Your task to perform on an android device: Clear the shopping cart on newegg.com. Add razer blade to the cart on newegg.com, then select checkout. Image 0: 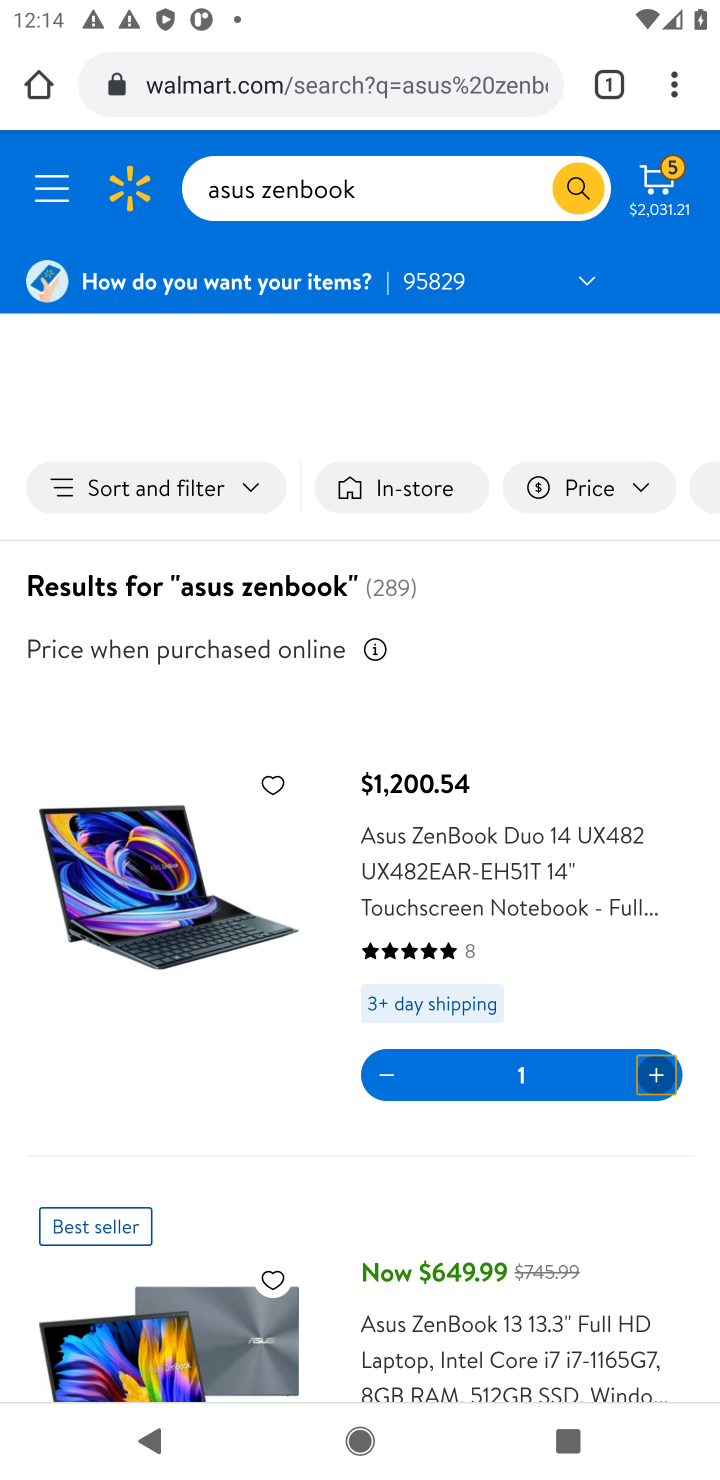
Step 0: click (262, 83)
Your task to perform on an android device: Clear the shopping cart on newegg.com. Add razer blade to the cart on newegg.com, then select checkout. Image 1: 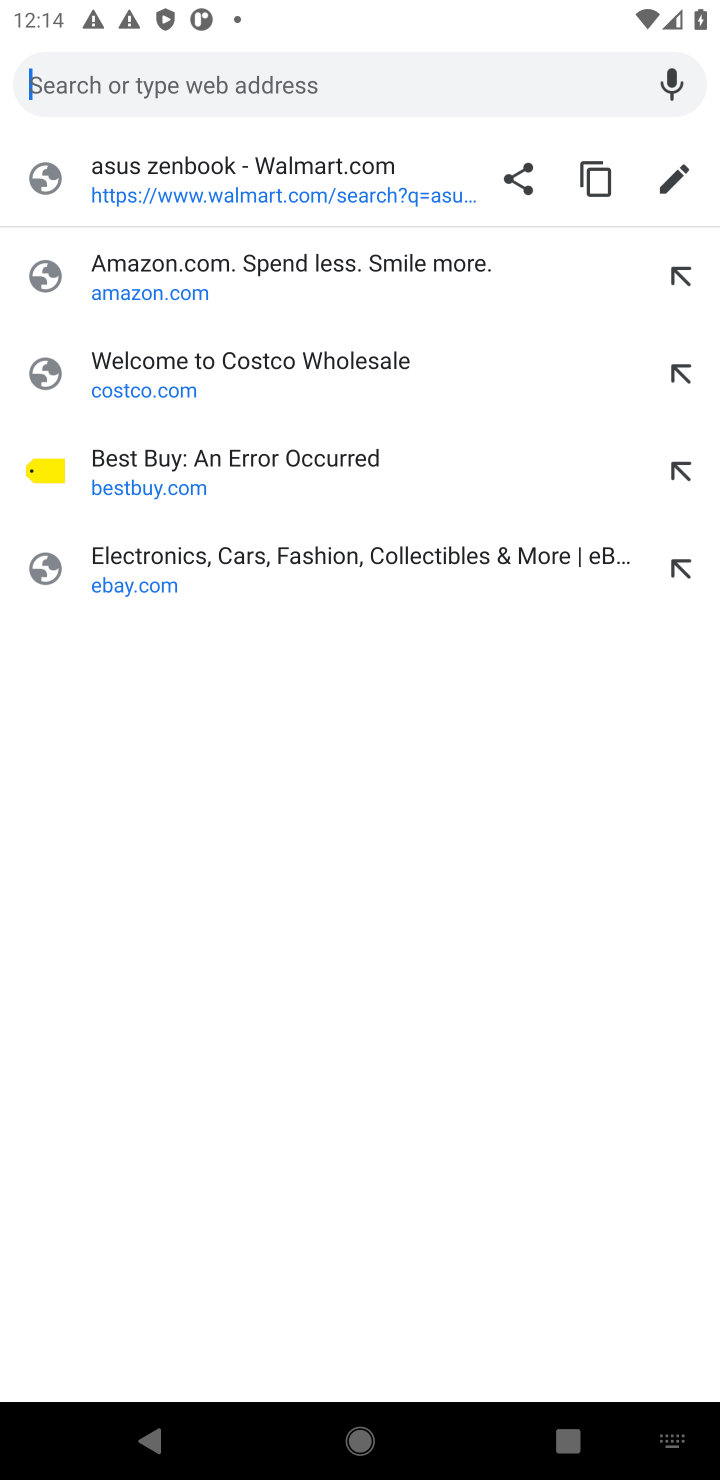
Step 1: type "newegg.com"
Your task to perform on an android device: Clear the shopping cart on newegg.com. Add razer blade to the cart on newegg.com, then select checkout. Image 2: 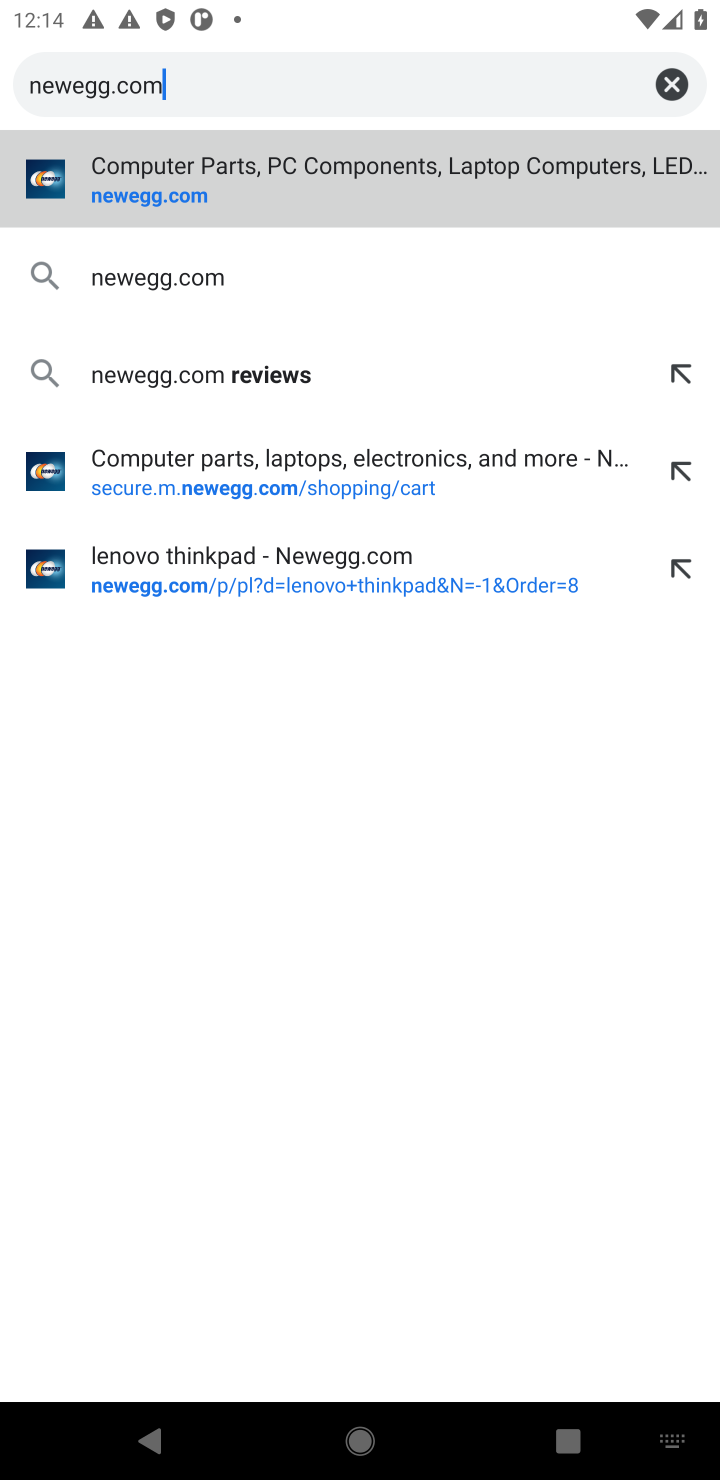
Step 2: click (141, 196)
Your task to perform on an android device: Clear the shopping cart on newegg.com. Add razer blade to the cart on newegg.com, then select checkout. Image 3: 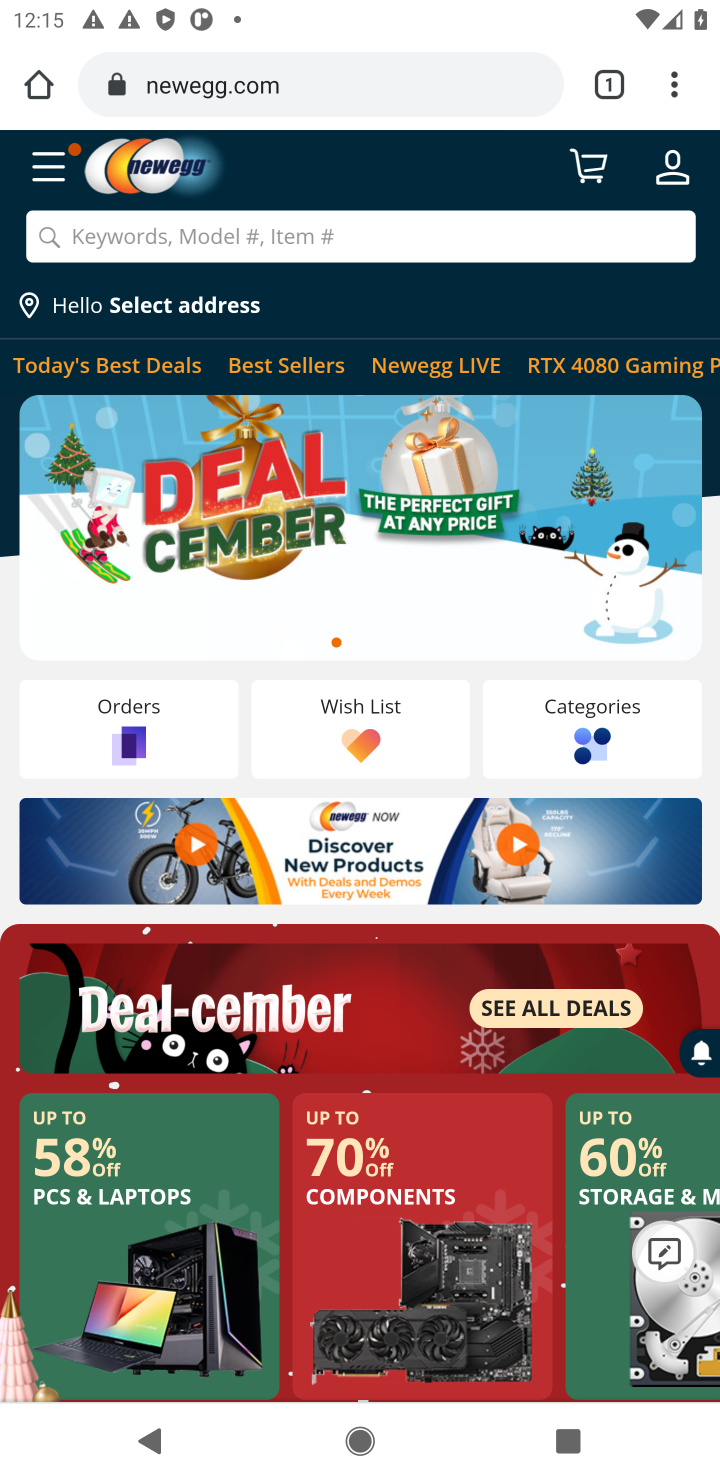
Step 3: click (590, 172)
Your task to perform on an android device: Clear the shopping cart on newegg.com. Add razer blade to the cart on newegg.com, then select checkout. Image 4: 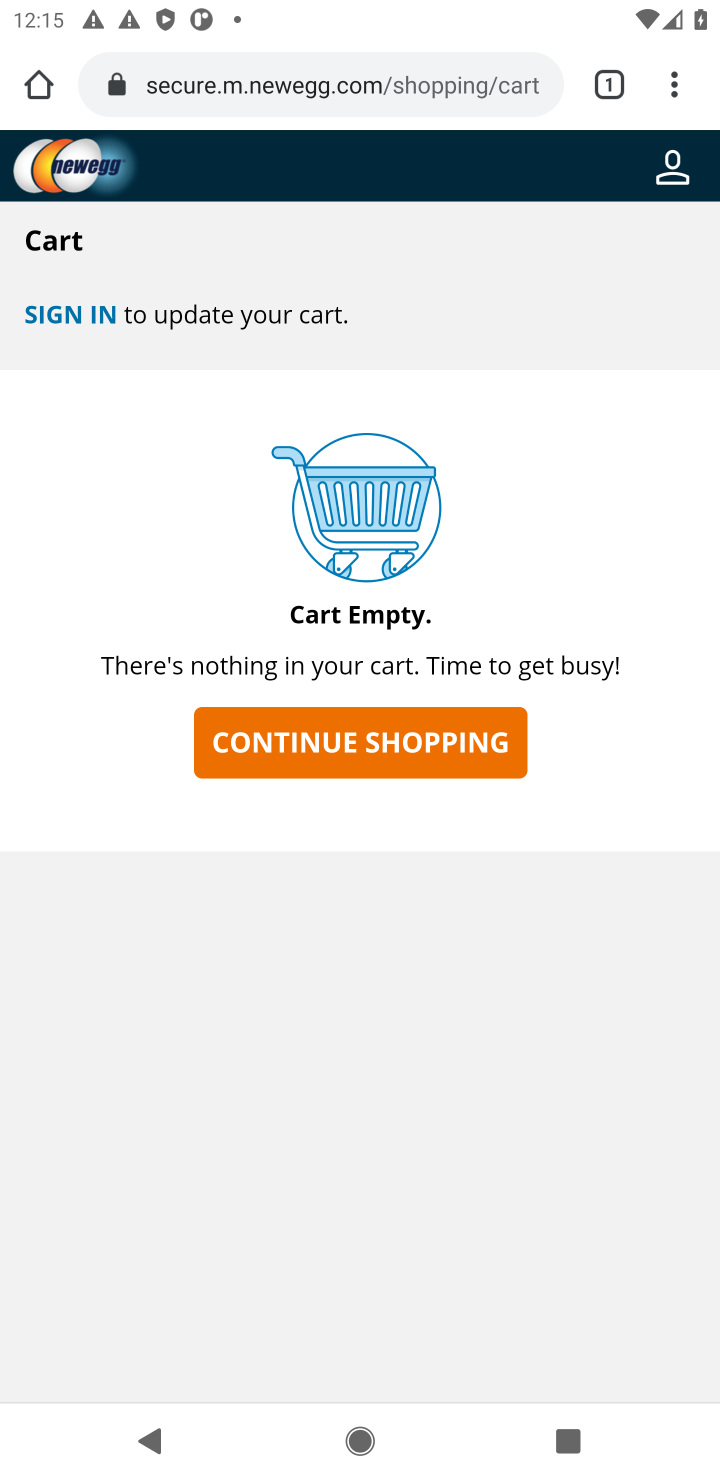
Step 4: click (271, 740)
Your task to perform on an android device: Clear the shopping cart on newegg.com. Add razer blade to the cart on newegg.com, then select checkout. Image 5: 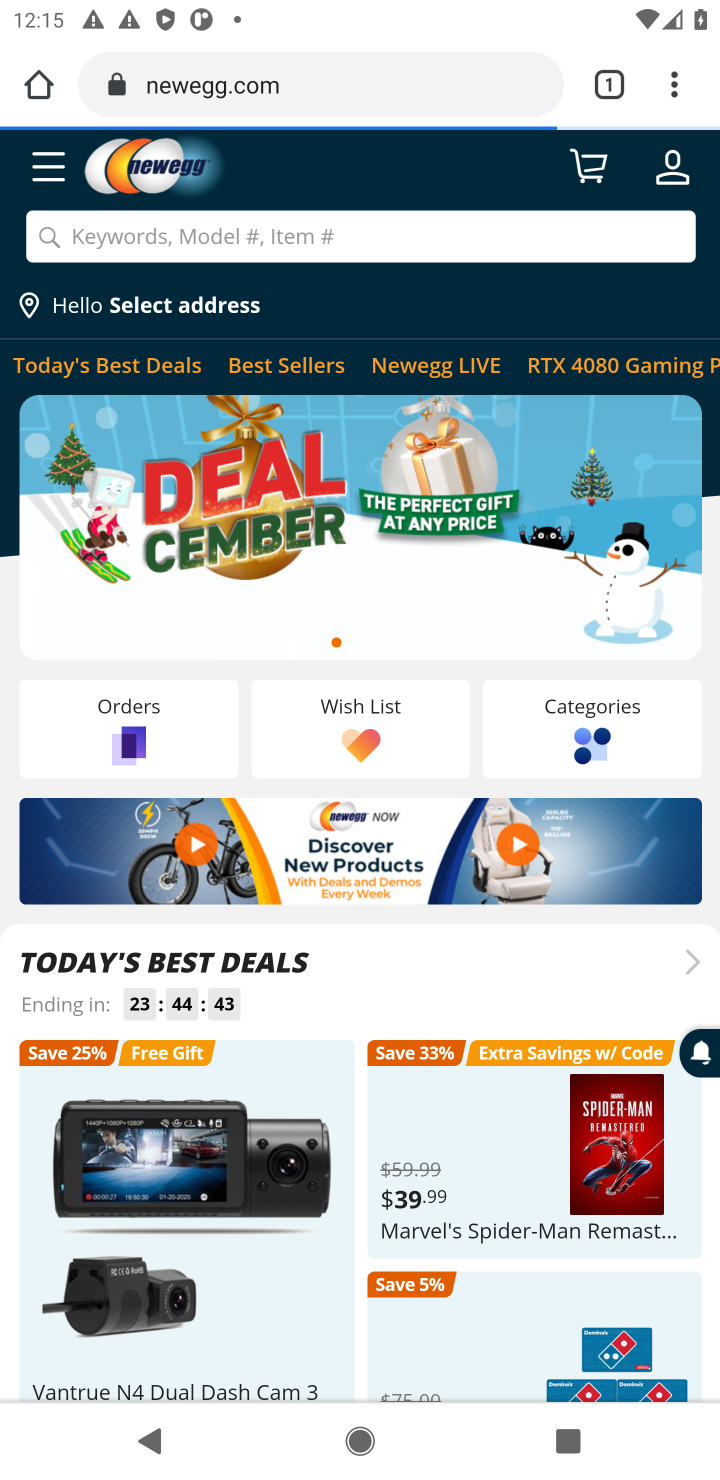
Step 5: click (136, 229)
Your task to perform on an android device: Clear the shopping cart on newegg.com. Add razer blade to the cart on newegg.com, then select checkout. Image 6: 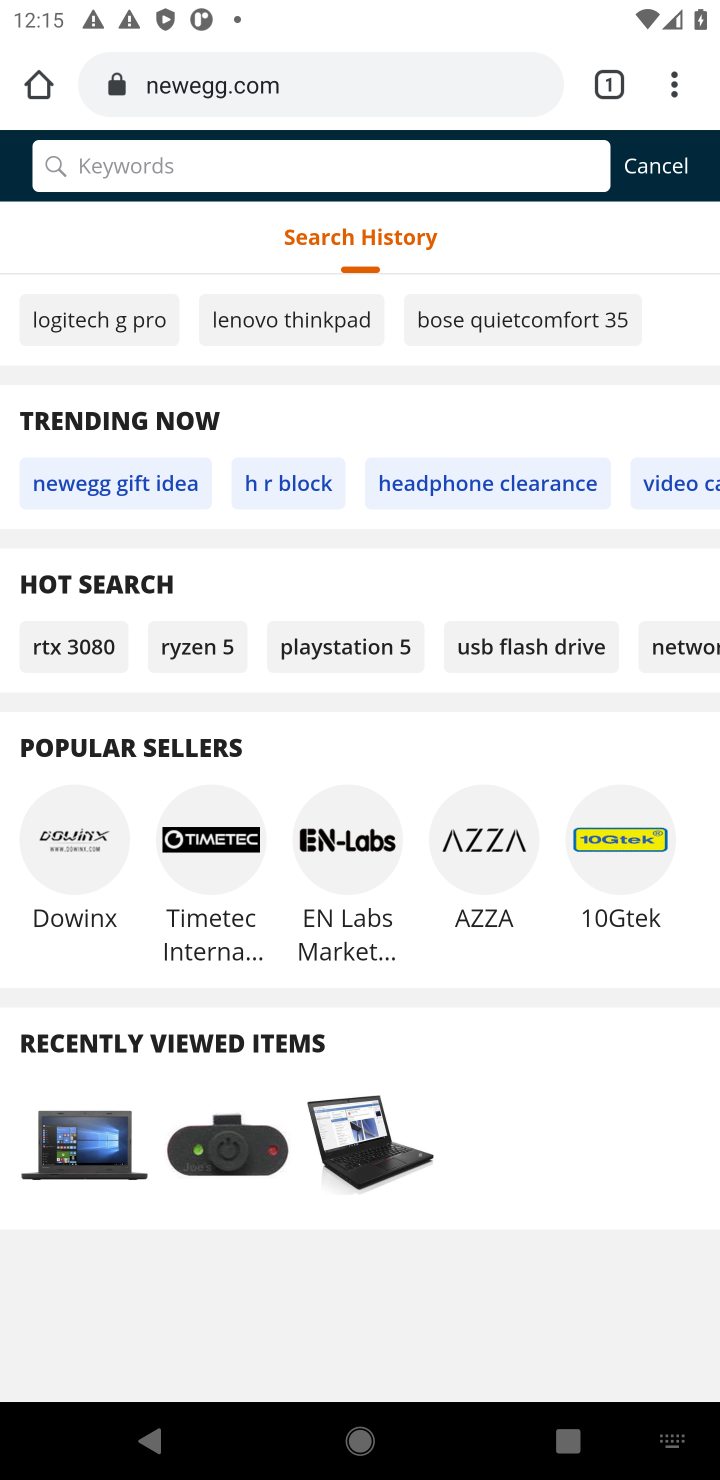
Step 6: type " razer blade"
Your task to perform on an android device: Clear the shopping cart on newegg.com. Add razer blade to the cart on newegg.com, then select checkout. Image 7: 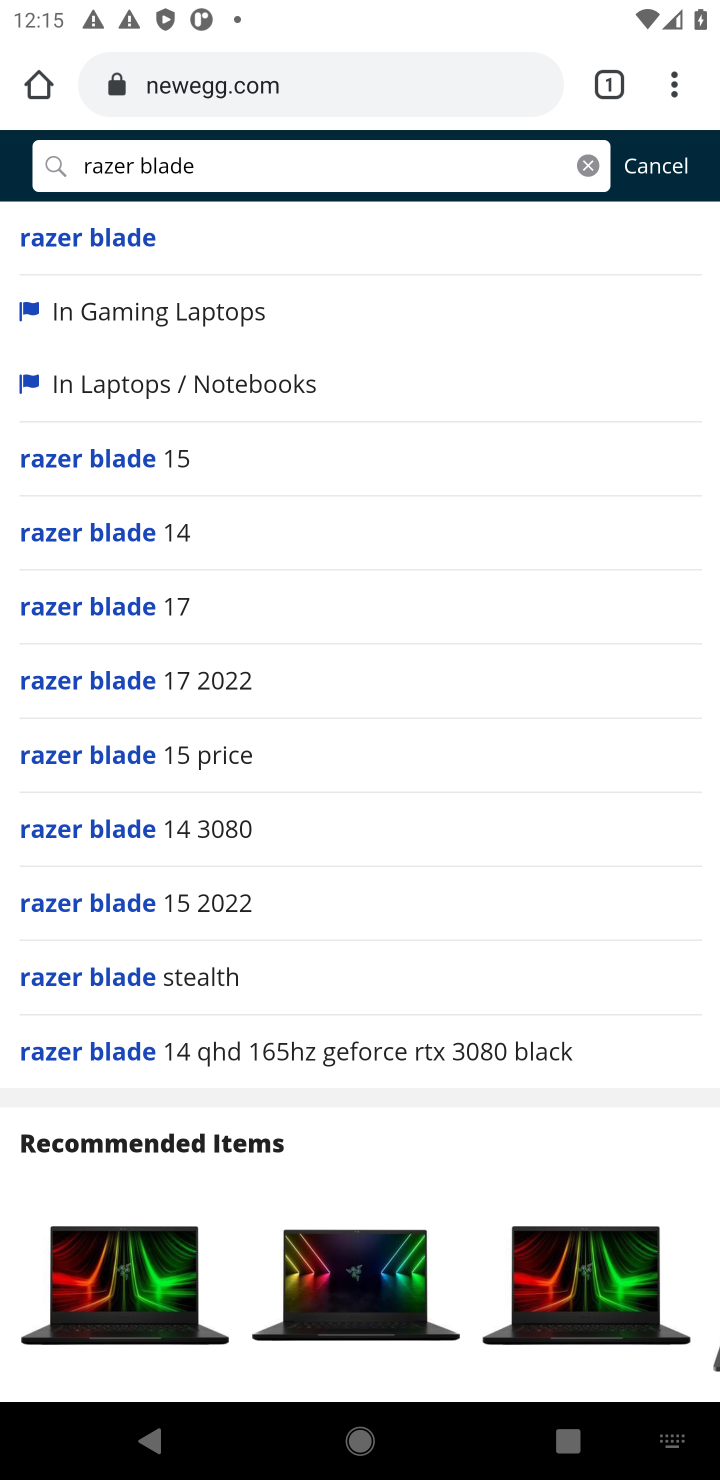
Step 7: click (104, 238)
Your task to perform on an android device: Clear the shopping cart on newegg.com. Add razer blade to the cart on newegg.com, then select checkout. Image 8: 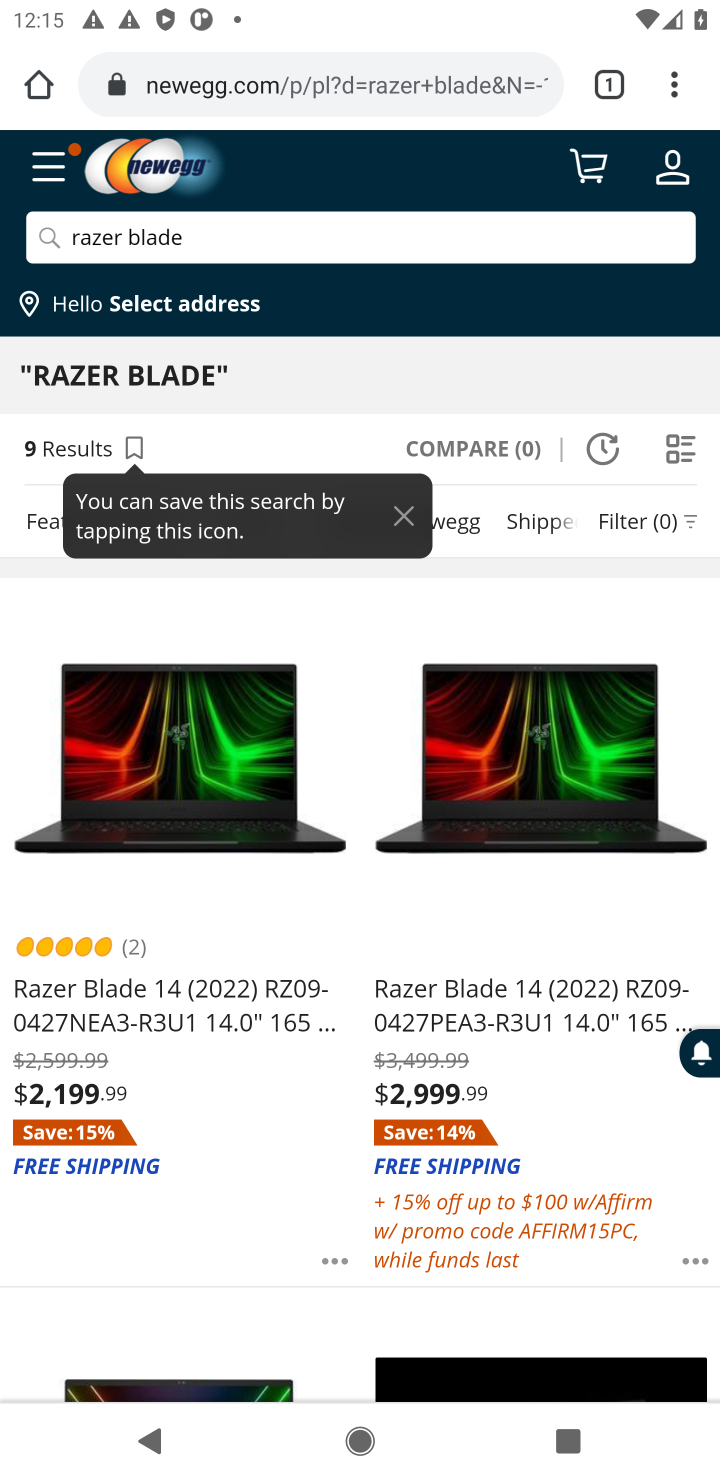
Step 8: click (117, 1020)
Your task to perform on an android device: Clear the shopping cart on newegg.com. Add razer blade to the cart on newegg.com, then select checkout. Image 9: 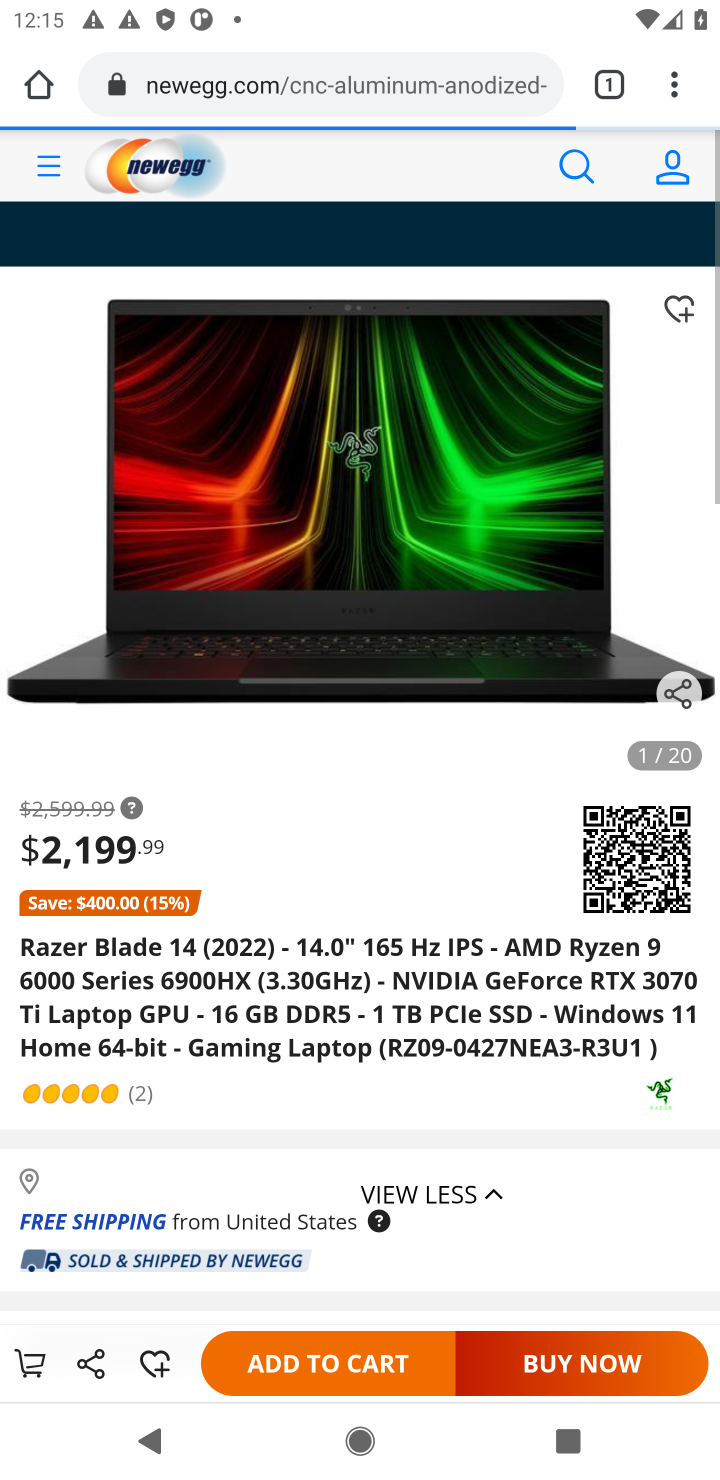
Step 9: click (98, 1011)
Your task to perform on an android device: Clear the shopping cart on newegg.com. Add razer blade to the cart on newegg.com, then select checkout. Image 10: 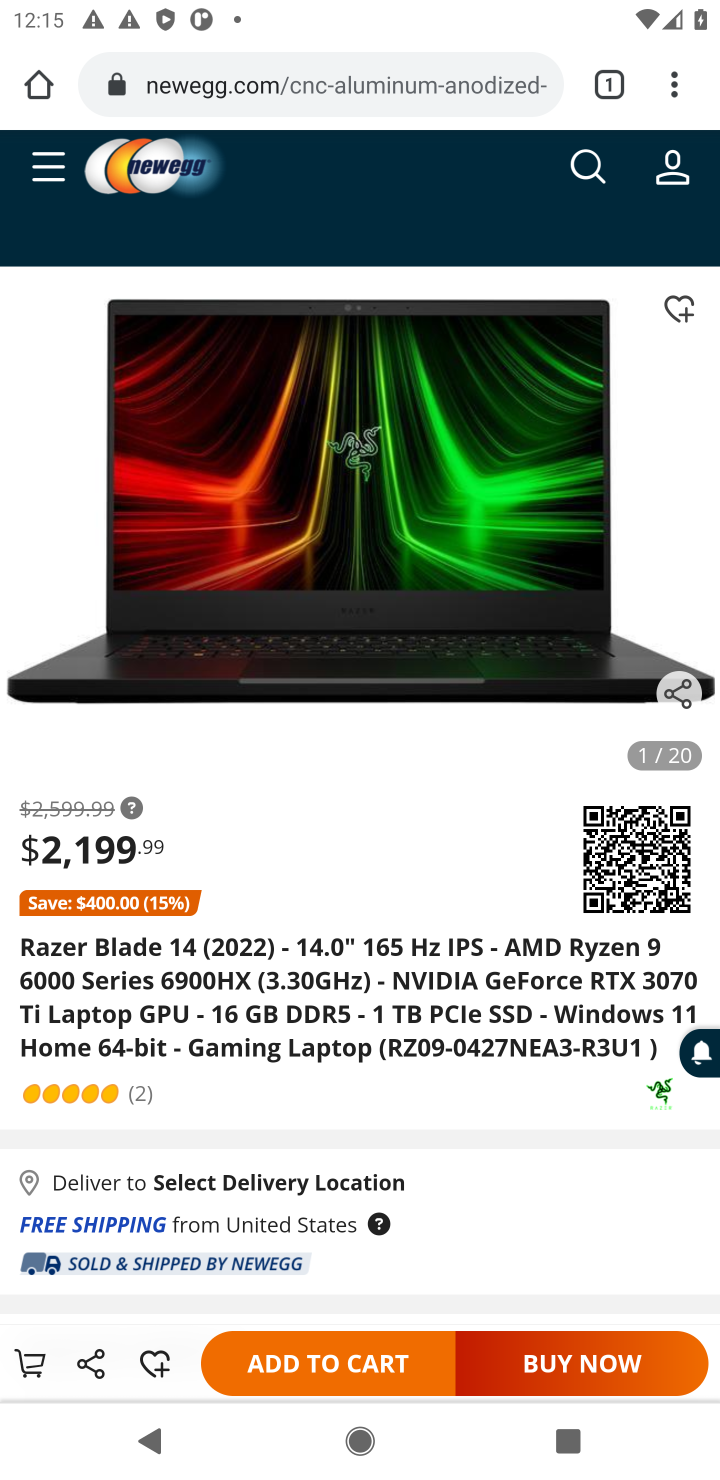
Step 10: click (324, 1362)
Your task to perform on an android device: Clear the shopping cart on newegg.com. Add razer blade to the cart on newegg.com, then select checkout. Image 11: 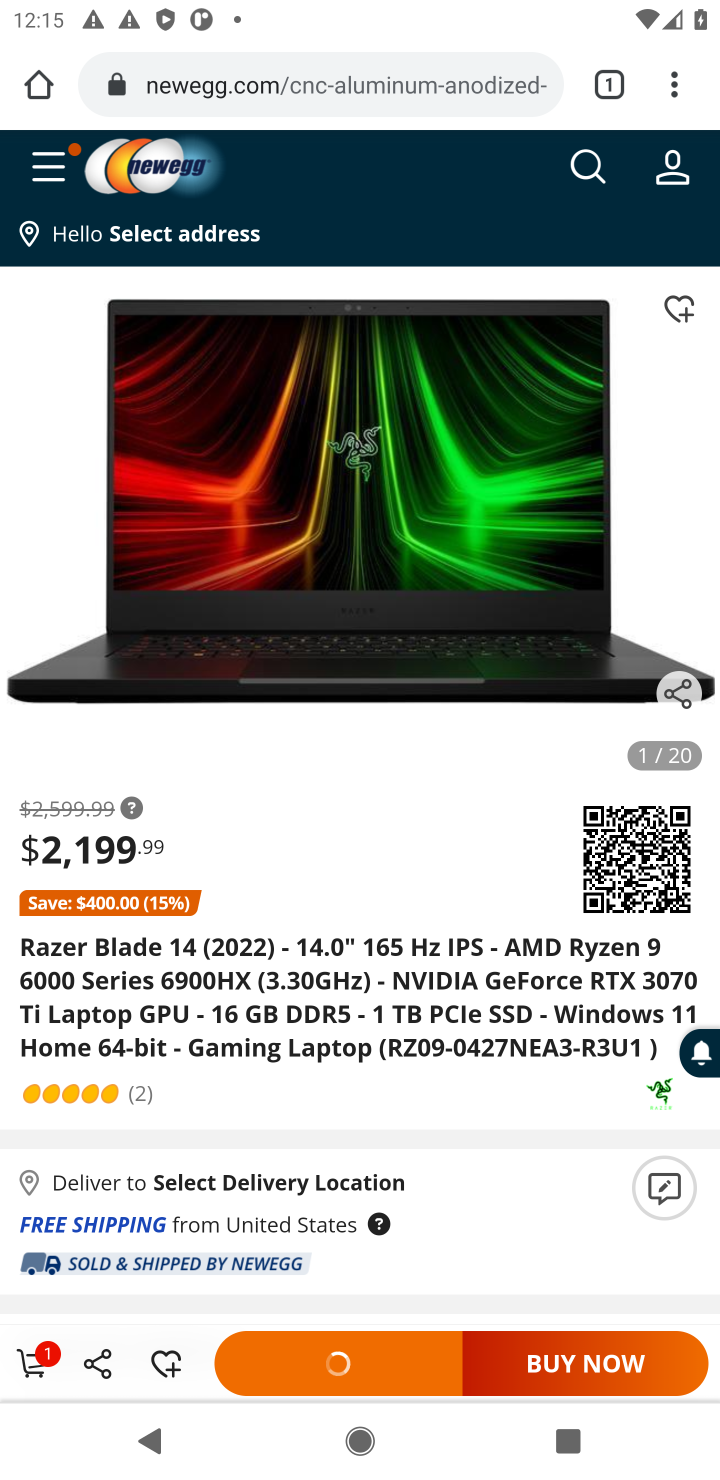
Step 11: click (33, 1366)
Your task to perform on an android device: Clear the shopping cart on newegg.com. Add razer blade to the cart on newegg.com, then select checkout. Image 12: 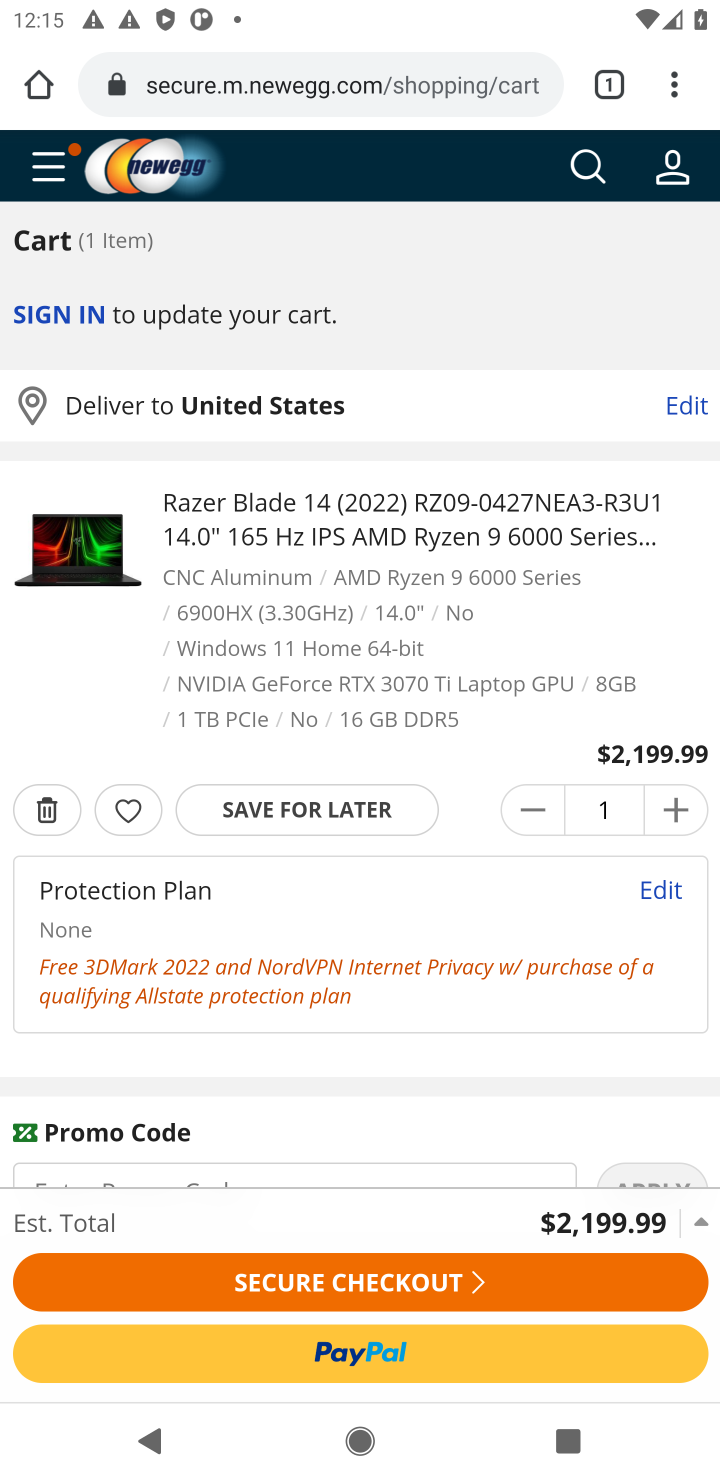
Step 12: click (79, 1348)
Your task to perform on an android device: Clear the shopping cart on newegg.com. Add razer blade to the cart on newegg.com, then select checkout. Image 13: 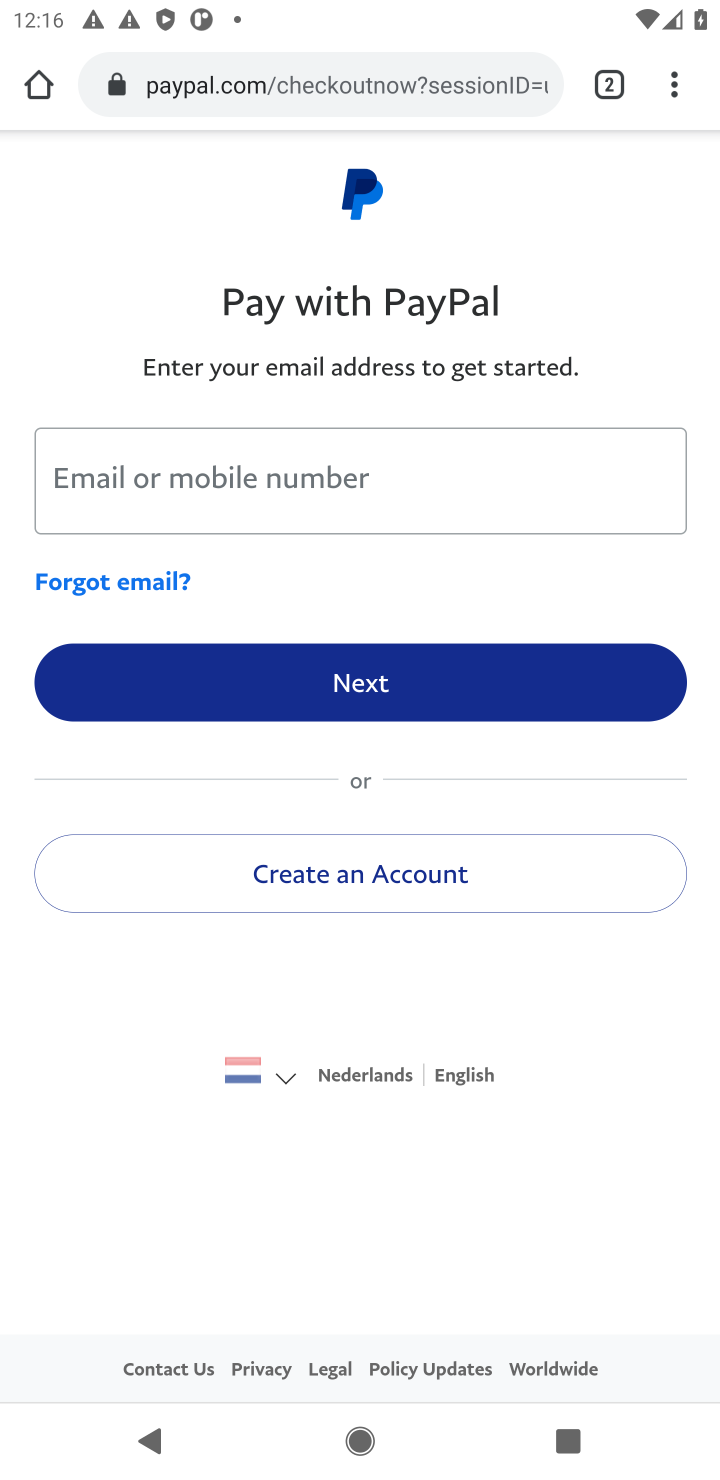
Step 13: task complete